Your task to perform on an android device: check android version Image 0: 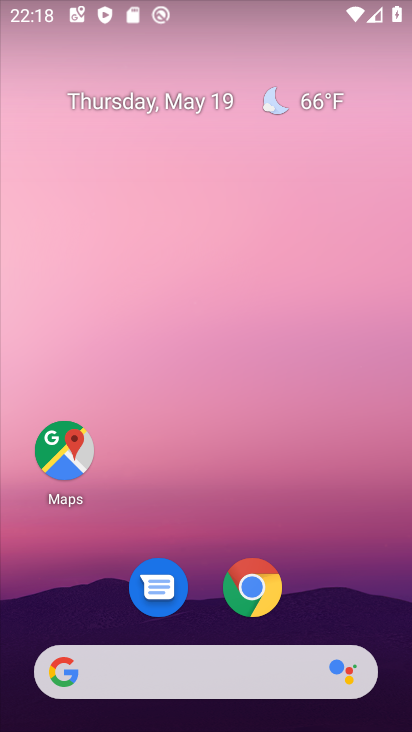
Step 0: press home button
Your task to perform on an android device: check android version Image 1: 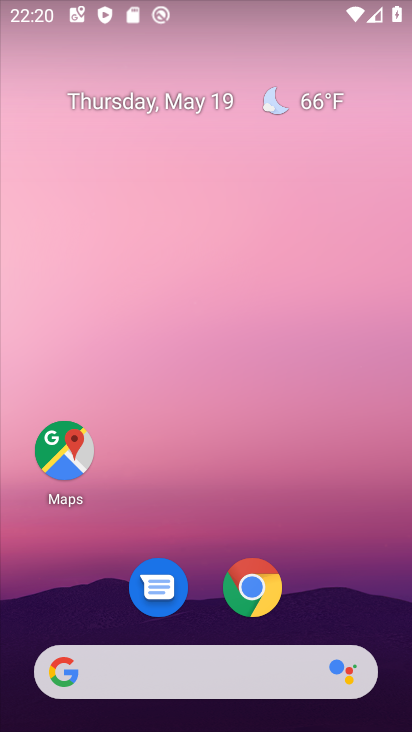
Step 1: drag from (274, 691) to (184, 151)
Your task to perform on an android device: check android version Image 2: 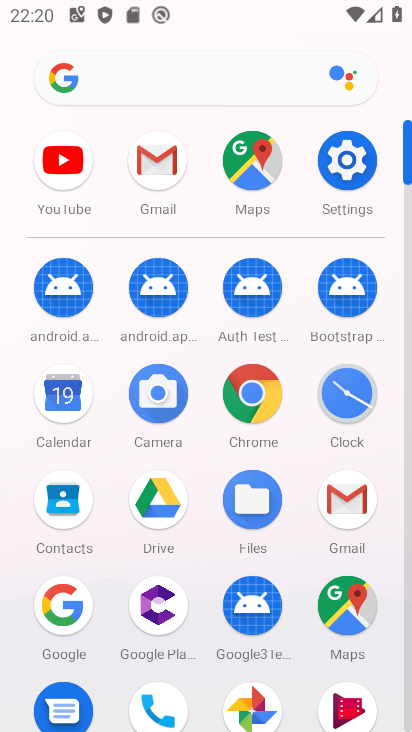
Step 2: click (337, 174)
Your task to perform on an android device: check android version Image 3: 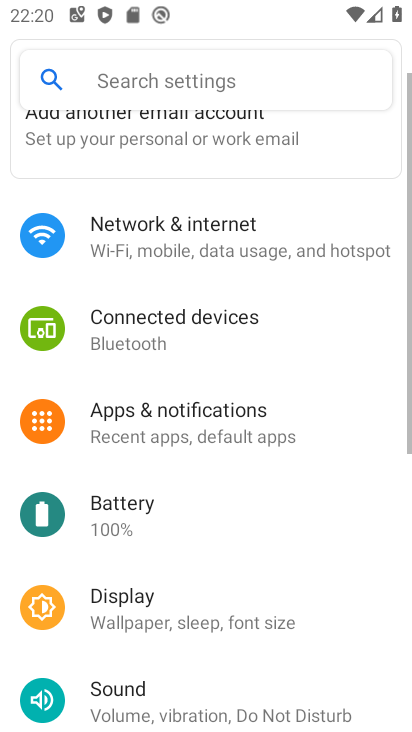
Step 3: click (182, 93)
Your task to perform on an android device: check android version Image 4: 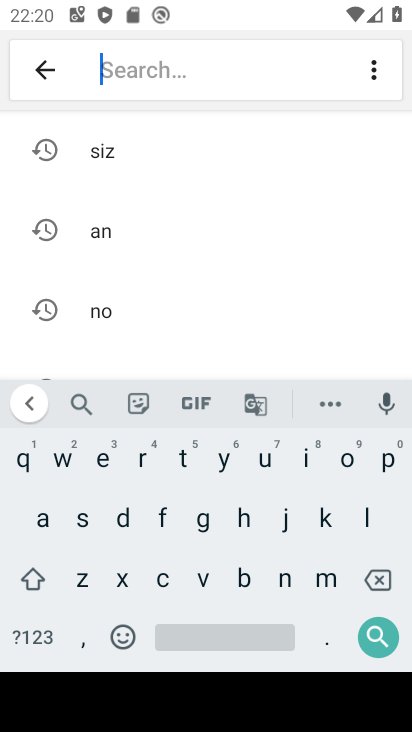
Step 4: click (47, 514)
Your task to perform on an android device: check android version Image 5: 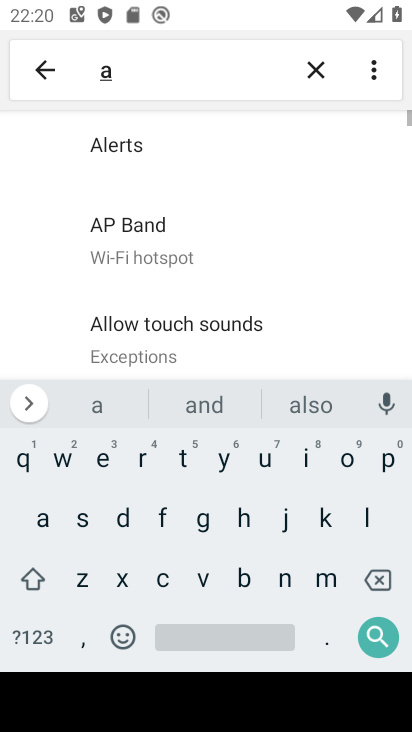
Step 5: click (291, 582)
Your task to perform on an android device: check android version Image 6: 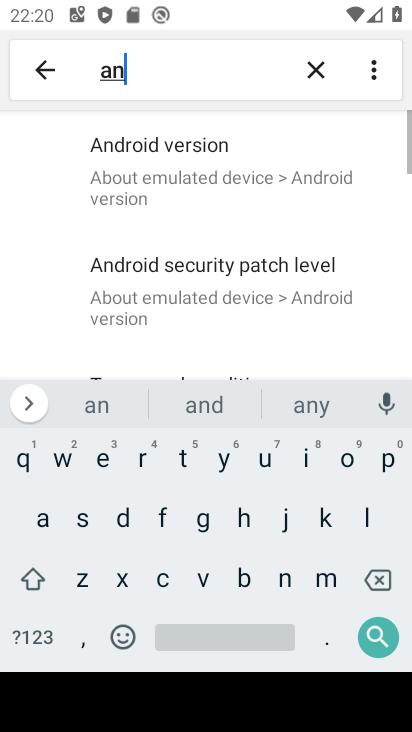
Step 6: click (210, 168)
Your task to perform on an android device: check android version Image 7: 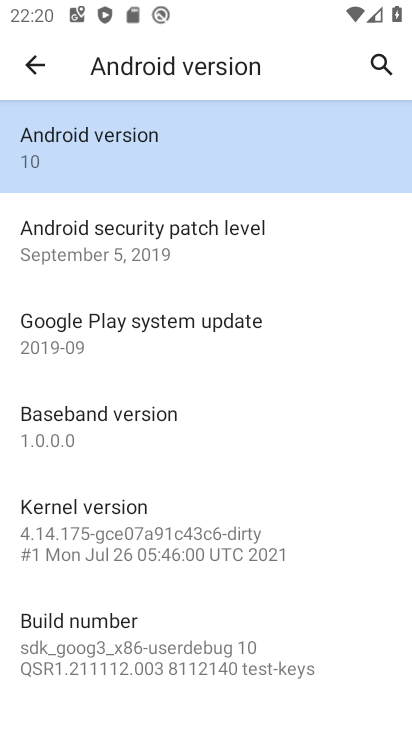
Step 7: task complete